Your task to perform on an android device: change keyboard looks Image 0: 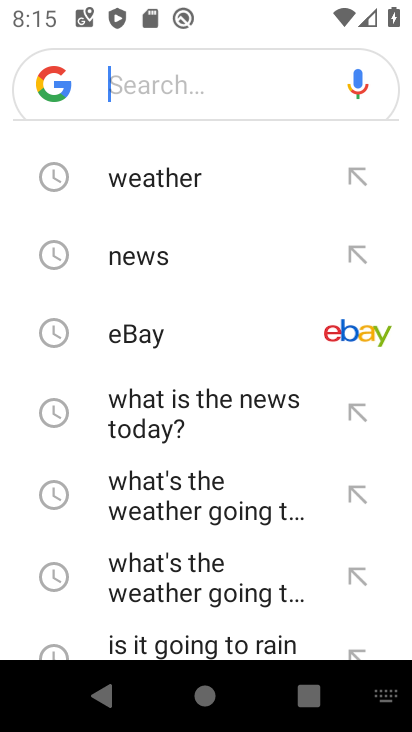
Step 0: press home button
Your task to perform on an android device: change keyboard looks Image 1: 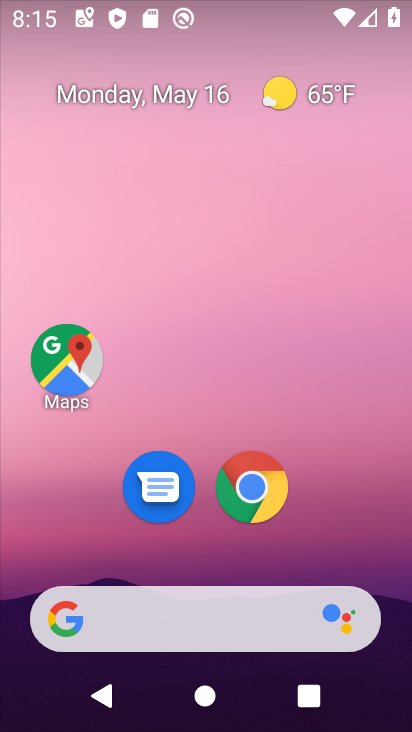
Step 1: drag from (391, 556) to (391, 101)
Your task to perform on an android device: change keyboard looks Image 2: 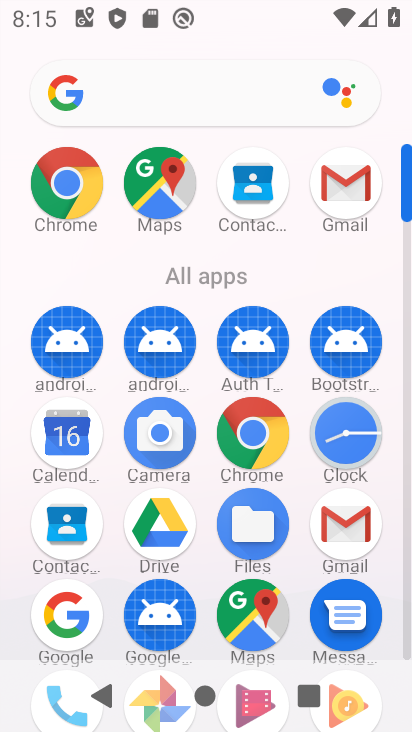
Step 2: drag from (396, 566) to (385, 264)
Your task to perform on an android device: change keyboard looks Image 3: 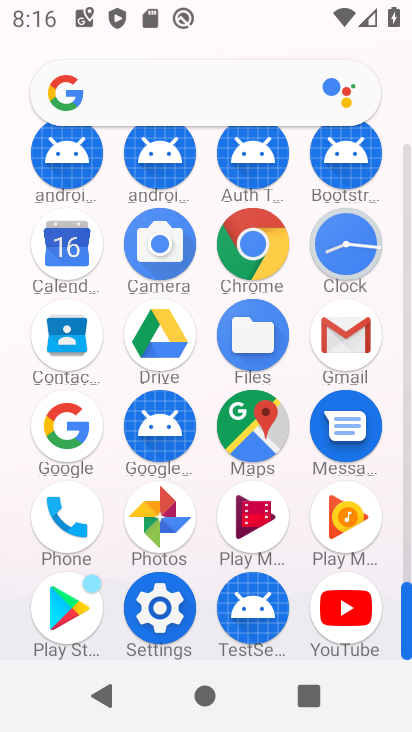
Step 3: click (152, 623)
Your task to perform on an android device: change keyboard looks Image 4: 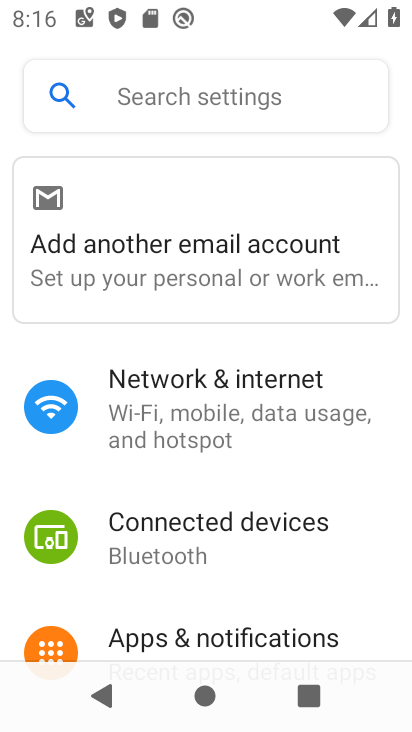
Step 4: drag from (300, 588) to (310, 464)
Your task to perform on an android device: change keyboard looks Image 5: 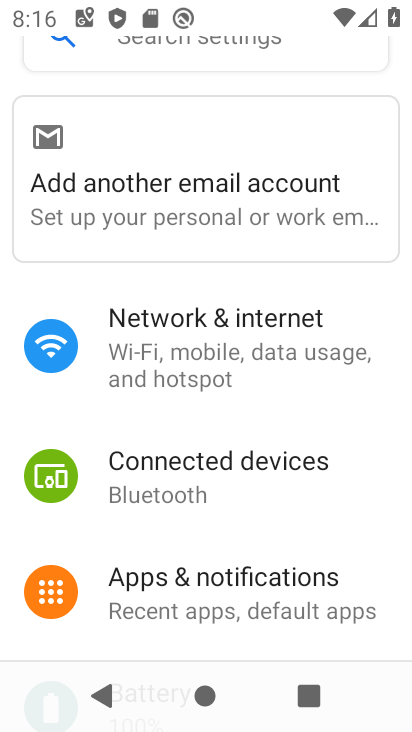
Step 5: drag from (346, 650) to (365, 464)
Your task to perform on an android device: change keyboard looks Image 6: 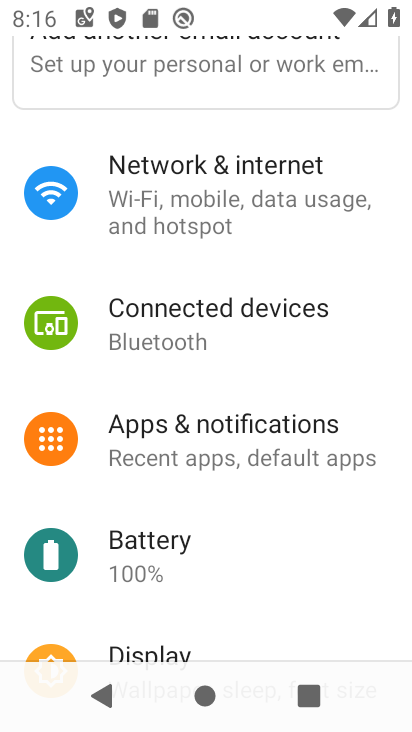
Step 6: drag from (349, 598) to (354, 420)
Your task to perform on an android device: change keyboard looks Image 7: 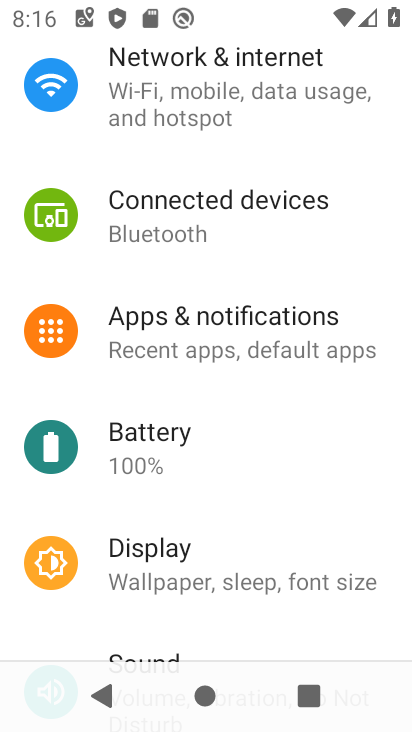
Step 7: drag from (345, 619) to (341, 446)
Your task to perform on an android device: change keyboard looks Image 8: 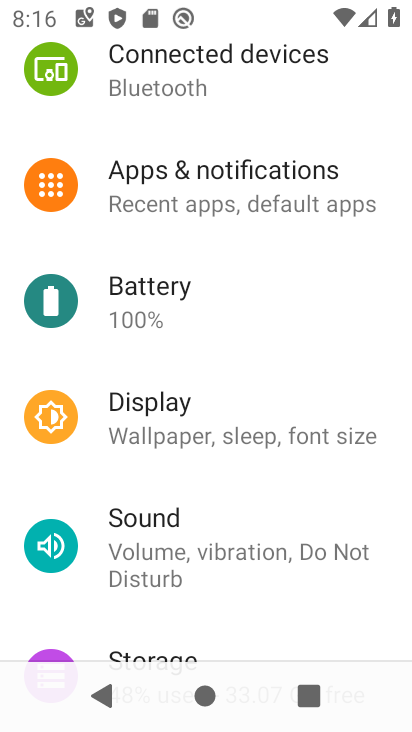
Step 8: drag from (324, 627) to (325, 472)
Your task to perform on an android device: change keyboard looks Image 9: 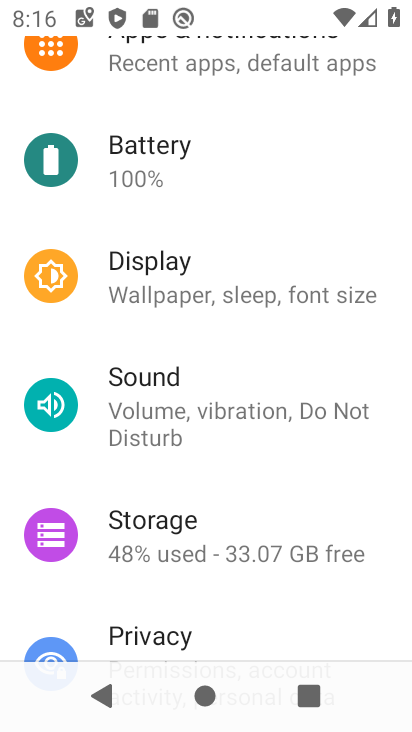
Step 9: drag from (322, 619) to (327, 483)
Your task to perform on an android device: change keyboard looks Image 10: 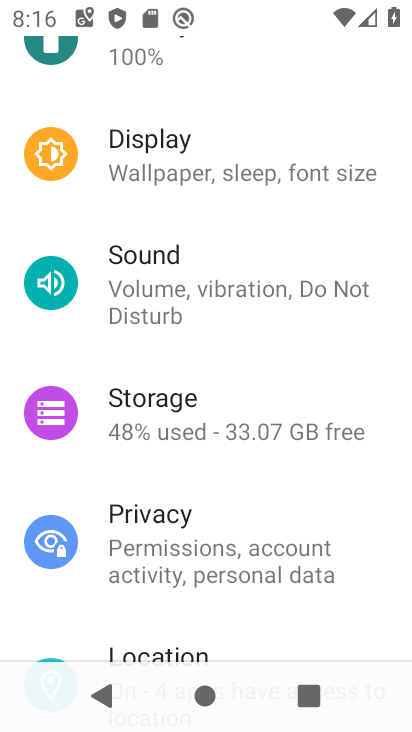
Step 10: drag from (303, 638) to (300, 496)
Your task to perform on an android device: change keyboard looks Image 11: 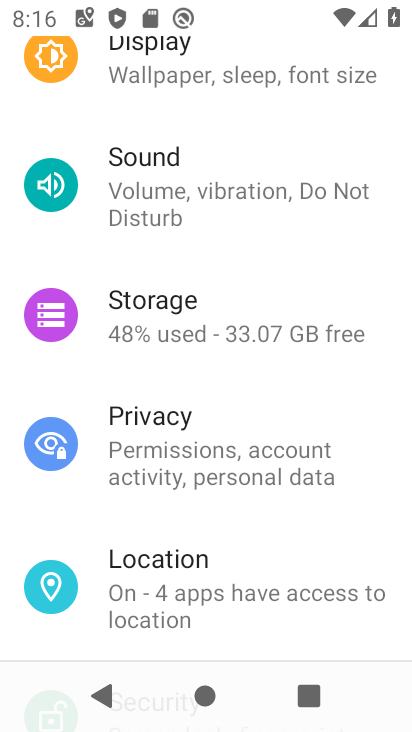
Step 11: drag from (282, 628) to (290, 473)
Your task to perform on an android device: change keyboard looks Image 12: 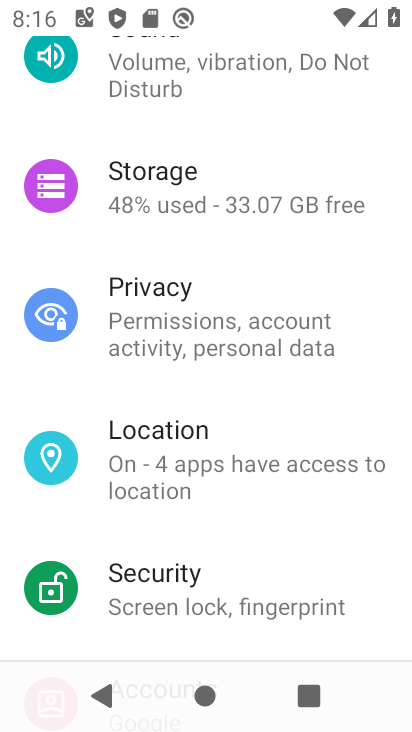
Step 12: drag from (283, 581) to (293, 419)
Your task to perform on an android device: change keyboard looks Image 13: 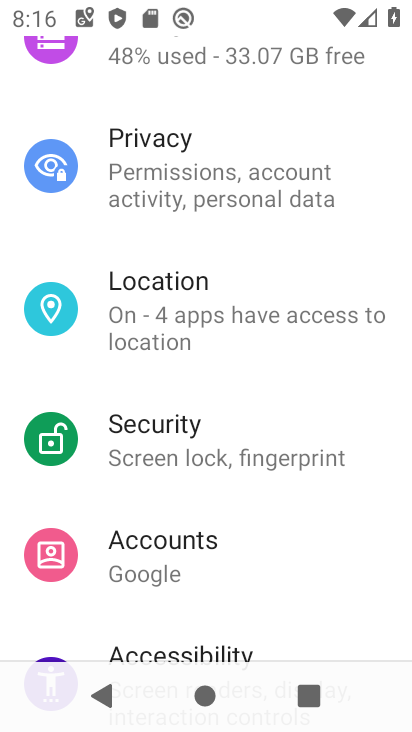
Step 13: drag from (325, 585) to (323, 400)
Your task to perform on an android device: change keyboard looks Image 14: 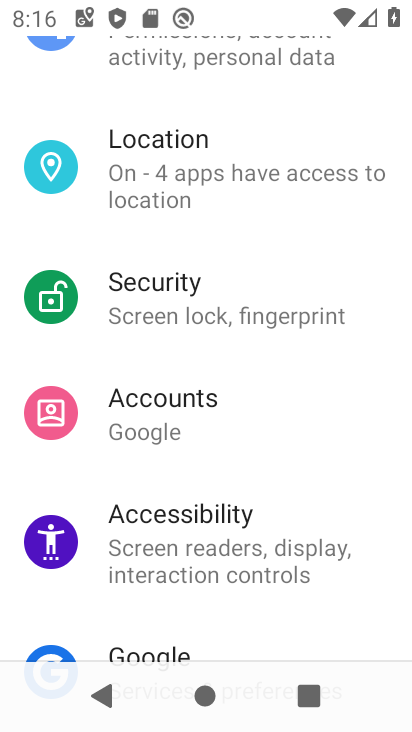
Step 14: drag from (314, 620) to (312, 454)
Your task to perform on an android device: change keyboard looks Image 15: 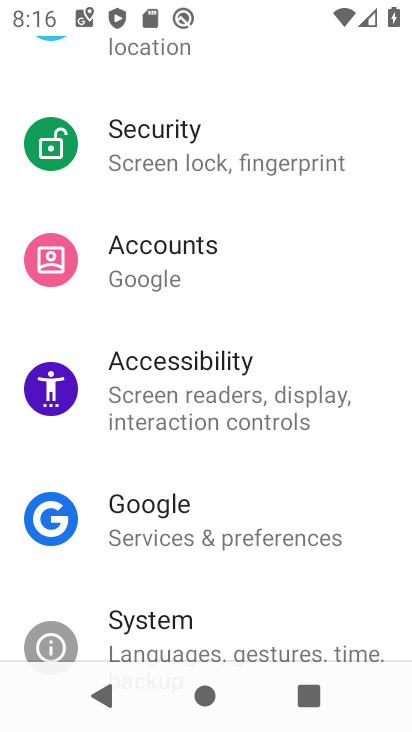
Step 15: drag from (297, 608) to (317, 349)
Your task to perform on an android device: change keyboard looks Image 16: 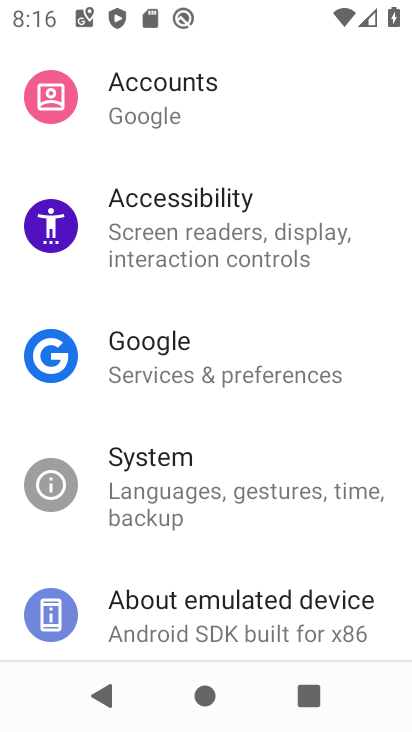
Step 16: click (248, 496)
Your task to perform on an android device: change keyboard looks Image 17: 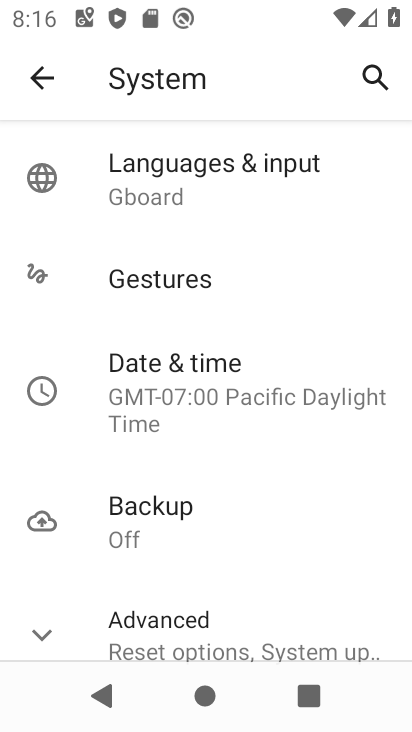
Step 17: click (172, 195)
Your task to perform on an android device: change keyboard looks Image 18: 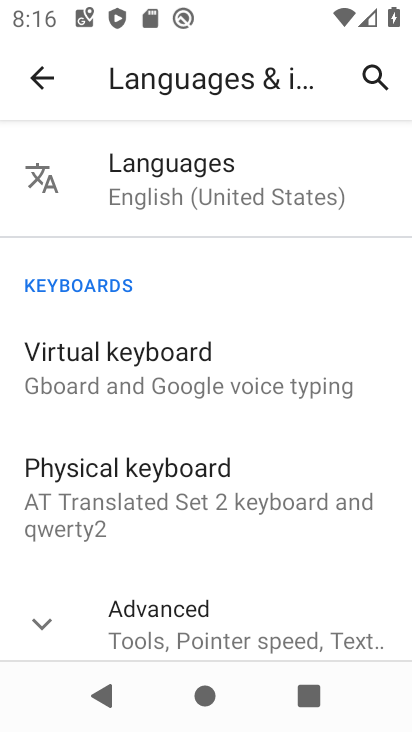
Step 18: click (180, 376)
Your task to perform on an android device: change keyboard looks Image 19: 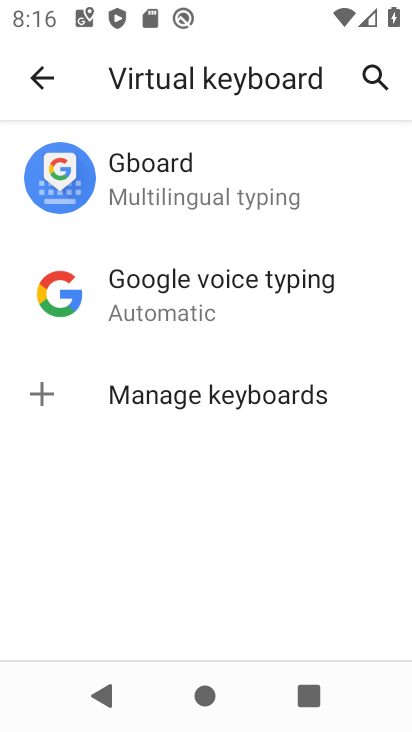
Step 19: click (171, 192)
Your task to perform on an android device: change keyboard looks Image 20: 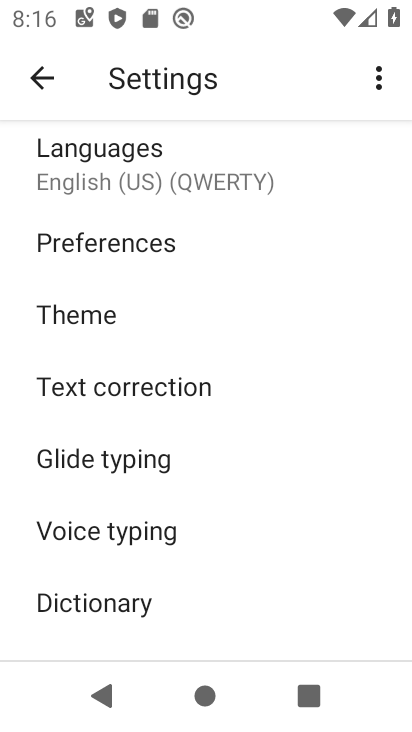
Step 20: click (105, 311)
Your task to perform on an android device: change keyboard looks Image 21: 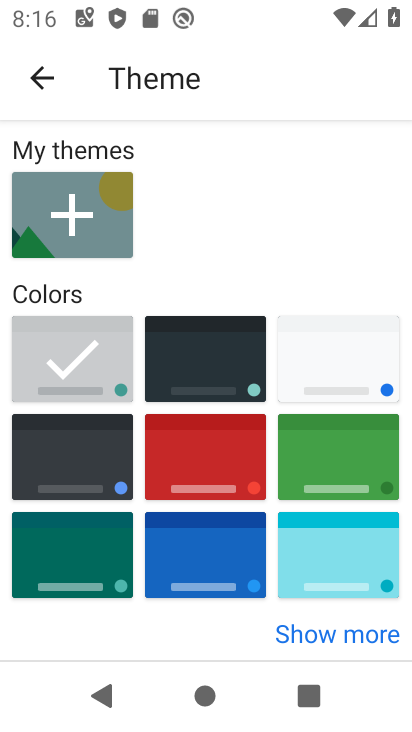
Step 21: click (214, 449)
Your task to perform on an android device: change keyboard looks Image 22: 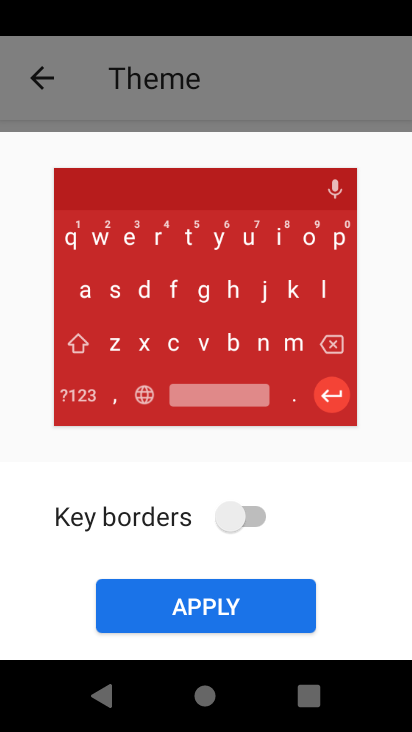
Step 22: click (222, 605)
Your task to perform on an android device: change keyboard looks Image 23: 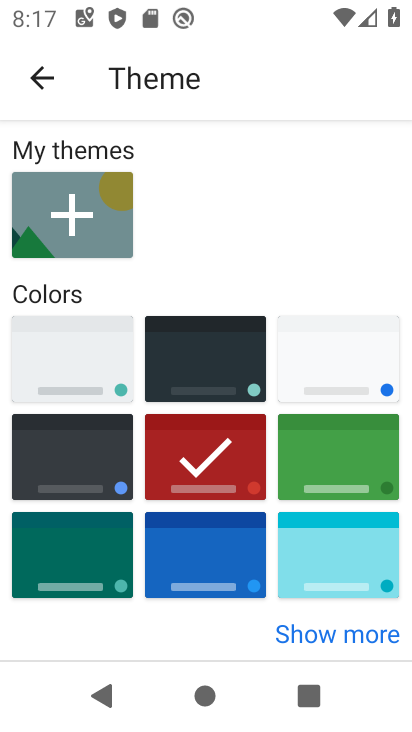
Step 23: task complete